Your task to perform on an android device: see sites visited before in the chrome app Image 0: 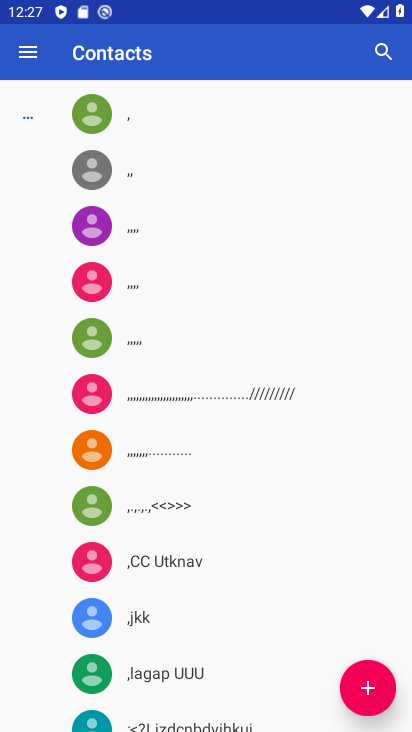
Step 0: press home button
Your task to perform on an android device: see sites visited before in the chrome app Image 1: 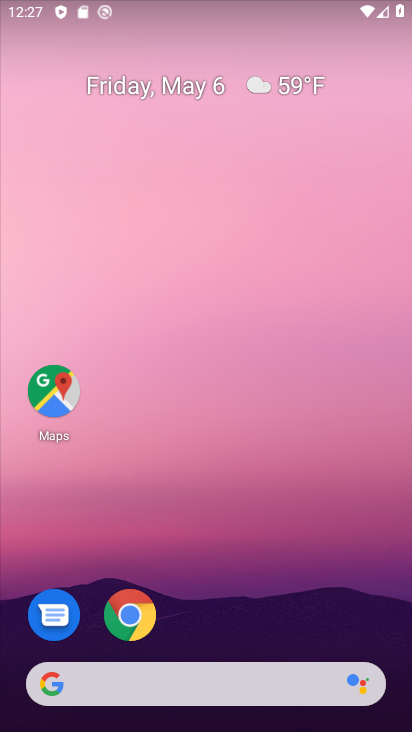
Step 1: drag from (231, 589) to (243, 0)
Your task to perform on an android device: see sites visited before in the chrome app Image 2: 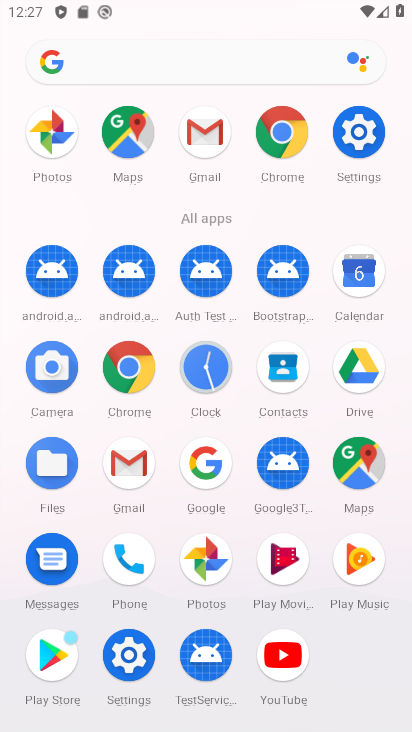
Step 2: click (280, 136)
Your task to perform on an android device: see sites visited before in the chrome app Image 3: 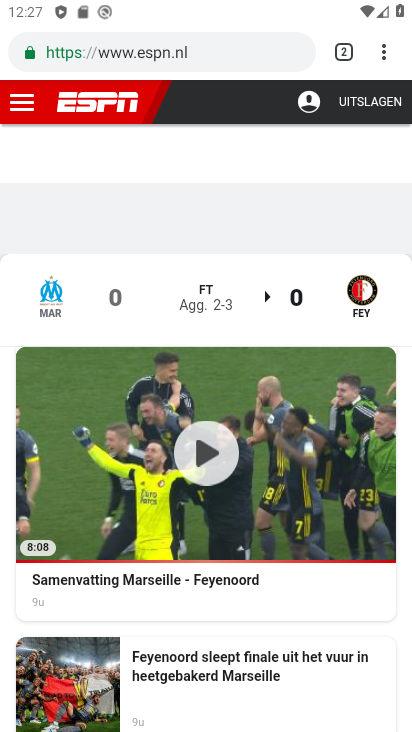
Step 3: task complete